Your task to perform on an android device: Find coffee shops on Maps Image 0: 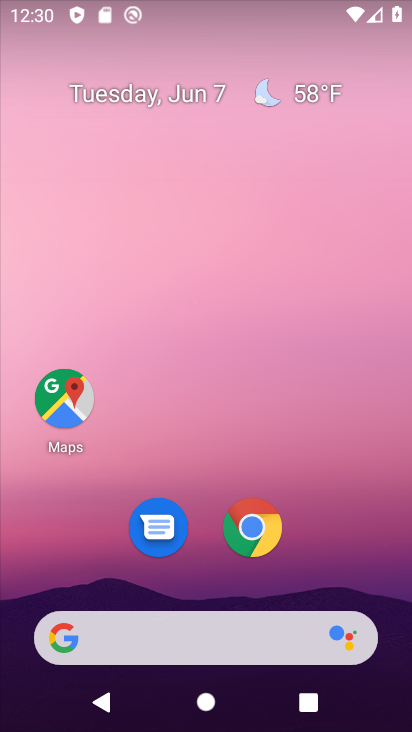
Step 0: click (65, 373)
Your task to perform on an android device: Find coffee shops on Maps Image 1: 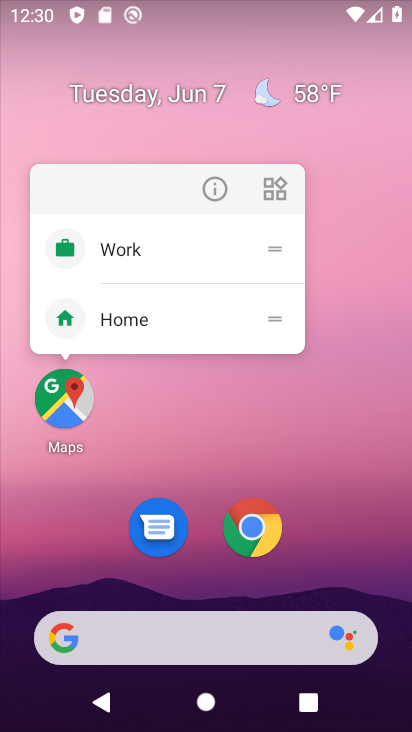
Step 1: click (77, 403)
Your task to perform on an android device: Find coffee shops on Maps Image 2: 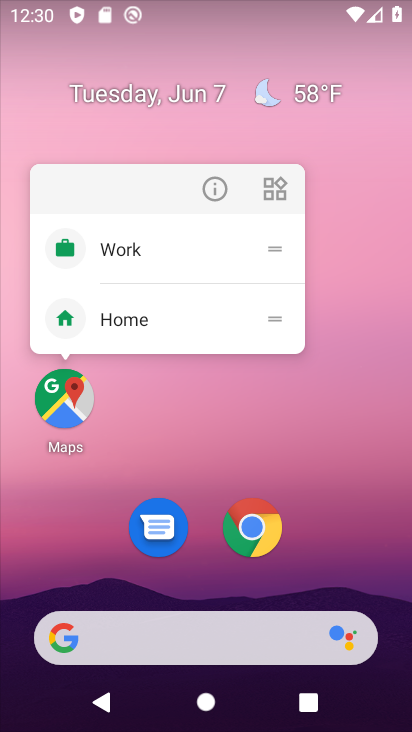
Step 2: click (77, 403)
Your task to perform on an android device: Find coffee shops on Maps Image 3: 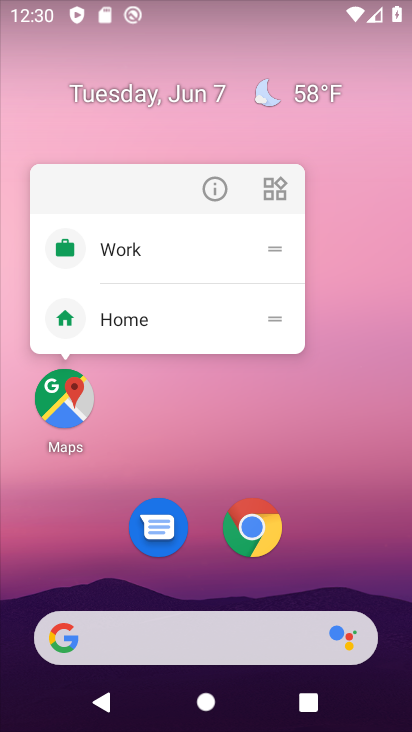
Step 3: click (69, 409)
Your task to perform on an android device: Find coffee shops on Maps Image 4: 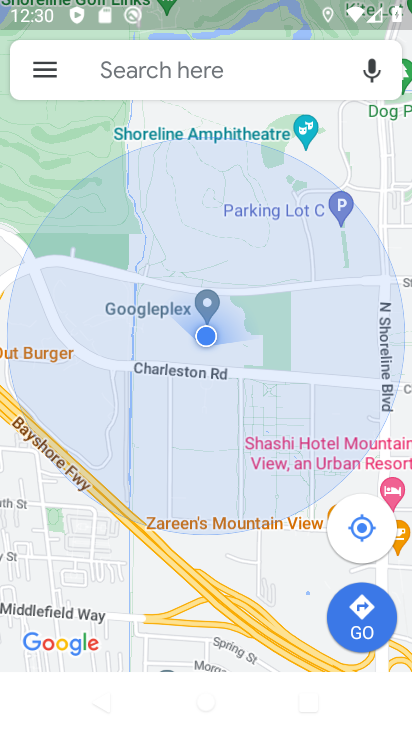
Step 4: click (98, 64)
Your task to perform on an android device: Find coffee shops on Maps Image 5: 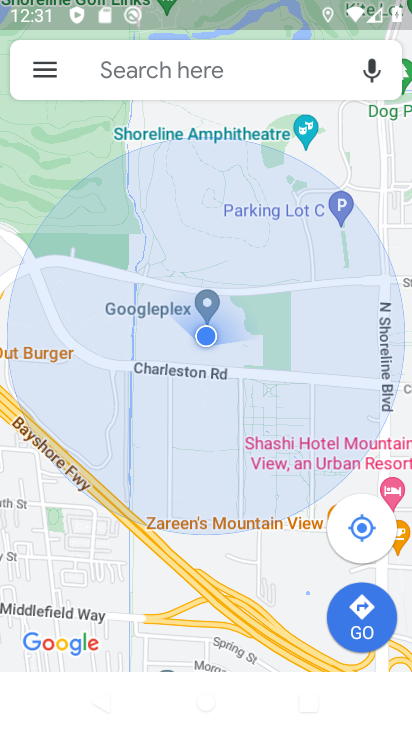
Step 5: click (117, 68)
Your task to perform on an android device: Find coffee shops on Maps Image 6: 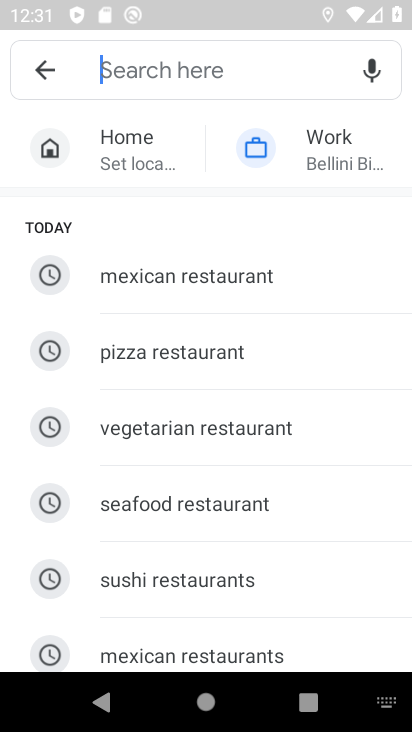
Step 6: type "coffee shops"
Your task to perform on an android device: Find coffee shops on Maps Image 7: 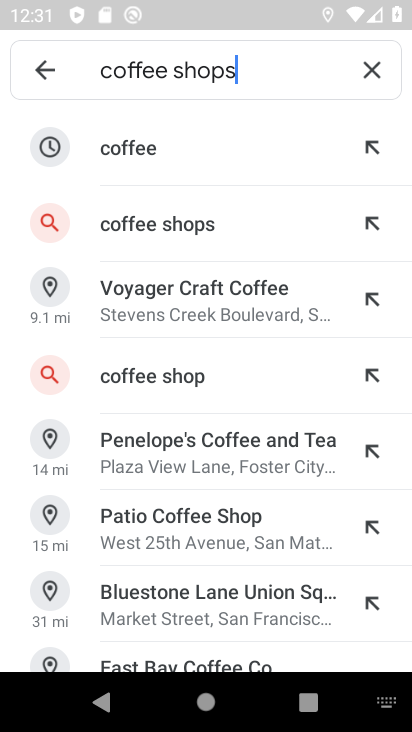
Step 7: click (147, 212)
Your task to perform on an android device: Find coffee shops on Maps Image 8: 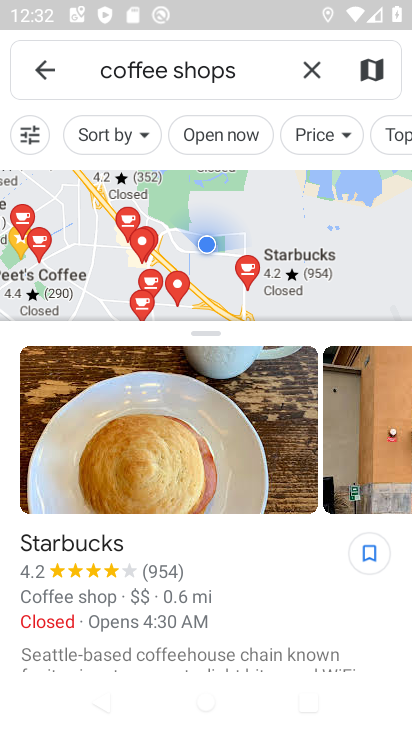
Step 8: task complete